Your task to perform on an android device: turn off airplane mode Image 0: 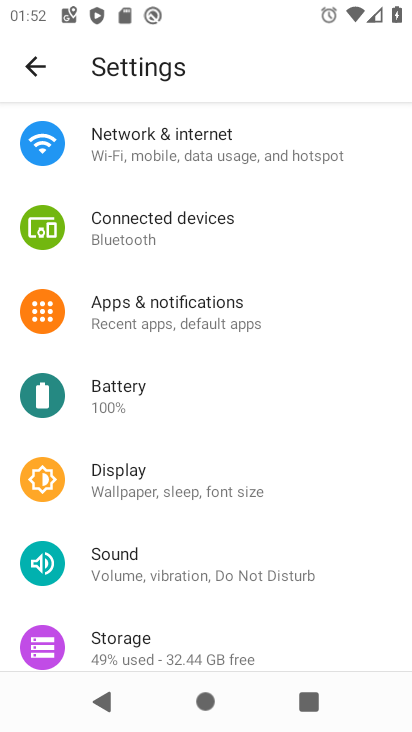
Step 0: drag from (271, 240) to (264, 339)
Your task to perform on an android device: turn off airplane mode Image 1: 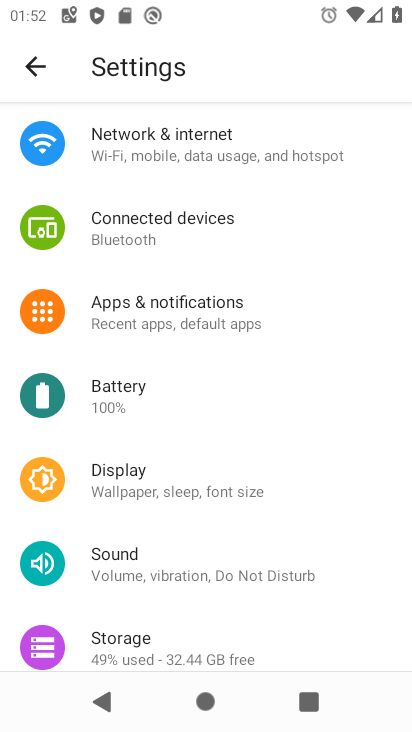
Step 1: click (241, 128)
Your task to perform on an android device: turn off airplane mode Image 2: 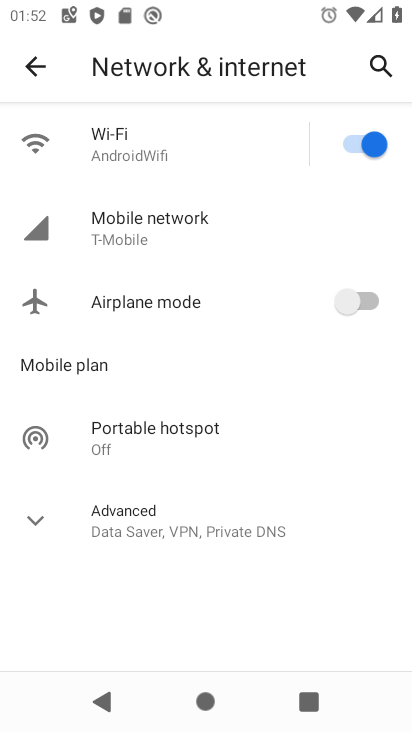
Step 2: task complete